Your task to perform on an android device: Go to Google maps Image 0: 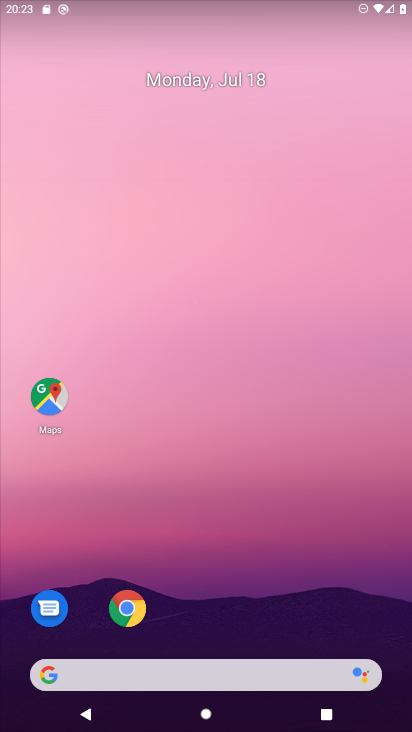
Step 0: drag from (258, 582) to (255, 171)
Your task to perform on an android device: Go to Google maps Image 1: 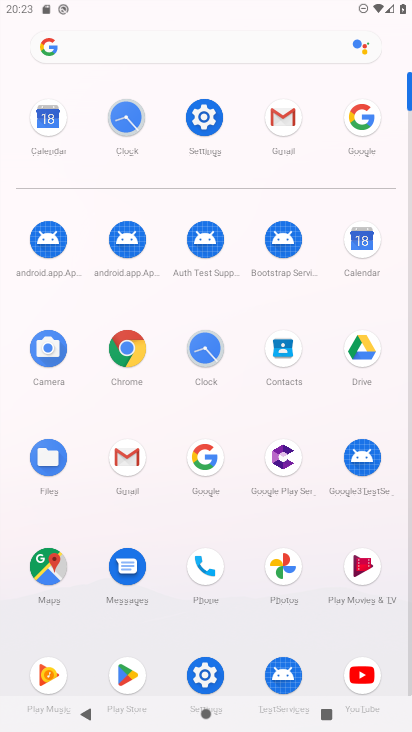
Step 1: click (48, 559)
Your task to perform on an android device: Go to Google maps Image 2: 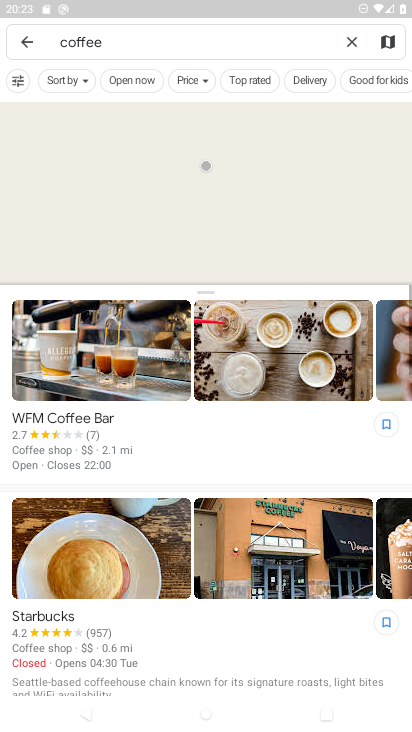
Step 2: task complete